Your task to perform on an android device: Open calendar and show me the fourth week of next month Image 0: 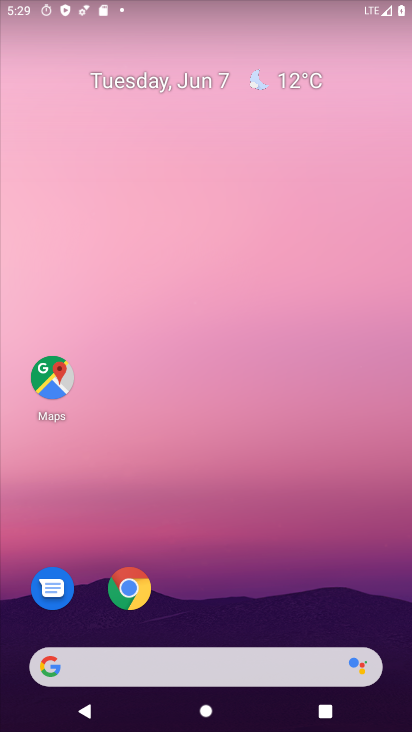
Step 0: drag from (218, 610) to (222, 24)
Your task to perform on an android device: Open calendar and show me the fourth week of next month Image 1: 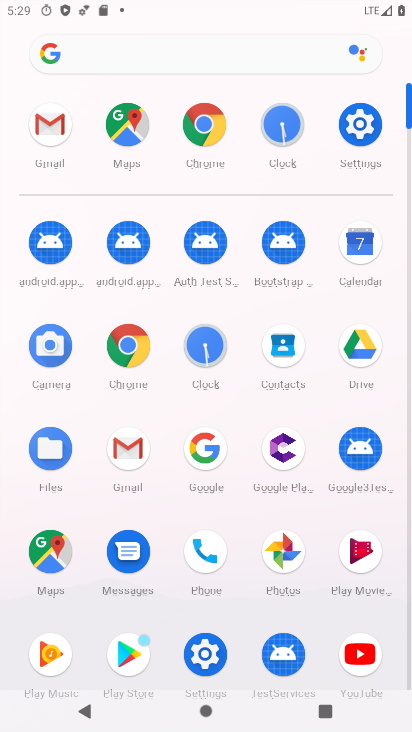
Step 1: press home button
Your task to perform on an android device: Open calendar and show me the fourth week of next month Image 2: 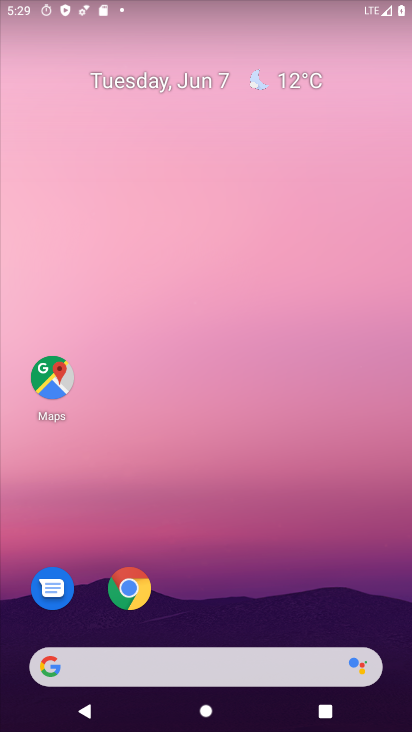
Step 2: drag from (197, 617) to (207, 152)
Your task to perform on an android device: Open calendar and show me the fourth week of next month Image 3: 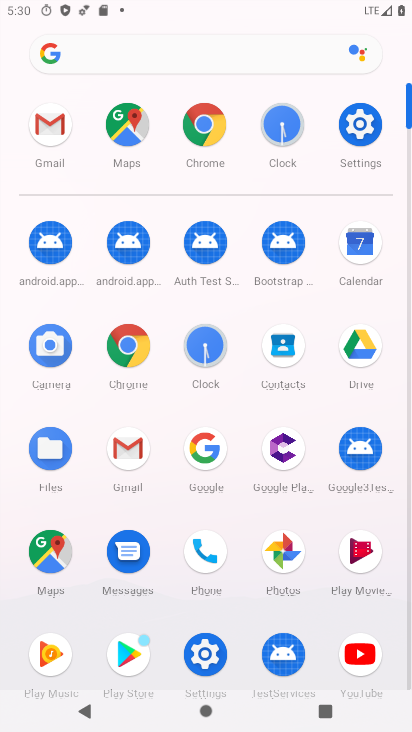
Step 3: drag from (248, 610) to (248, 175)
Your task to perform on an android device: Open calendar and show me the fourth week of next month Image 4: 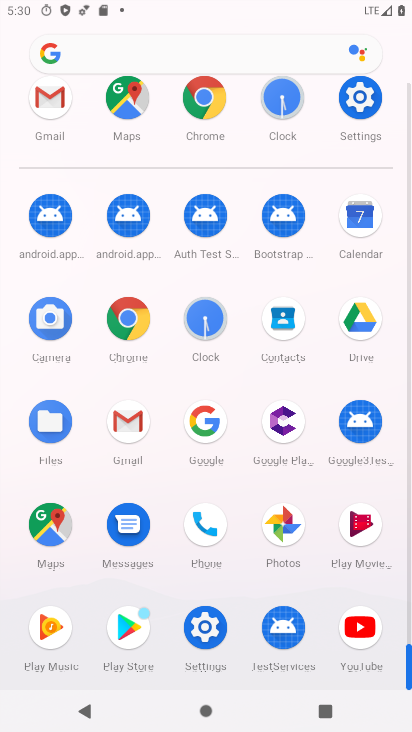
Step 4: click (359, 232)
Your task to perform on an android device: Open calendar and show me the fourth week of next month Image 5: 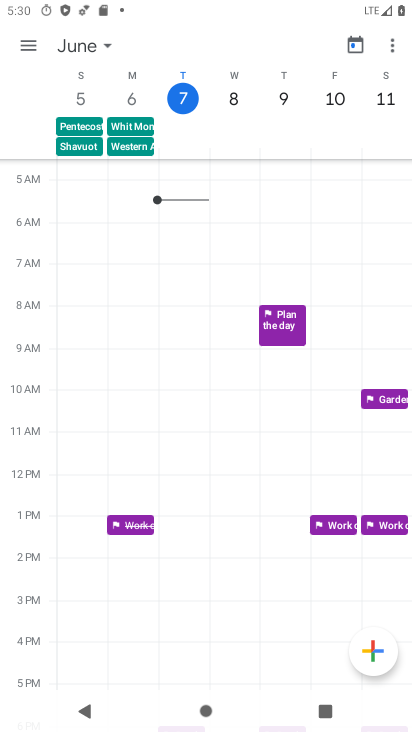
Step 5: click (59, 56)
Your task to perform on an android device: Open calendar and show me the fourth week of next month Image 6: 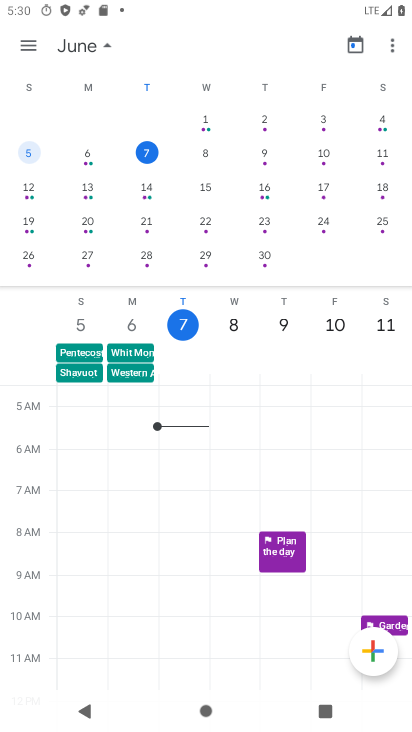
Step 6: drag from (350, 225) to (19, 164)
Your task to perform on an android device: Open calendar and show me the fourth week of next month Image 7: 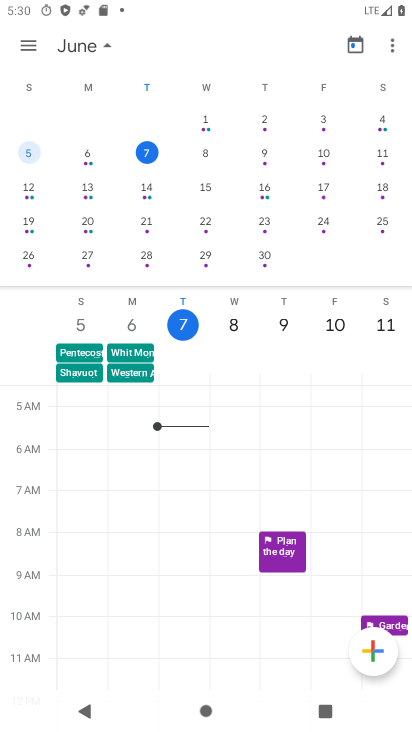
Step 7: drag from (370, 164) to (20, 100)
Your task to perform on an android device: Open calendar and show me the fourth week of next month Image 8: 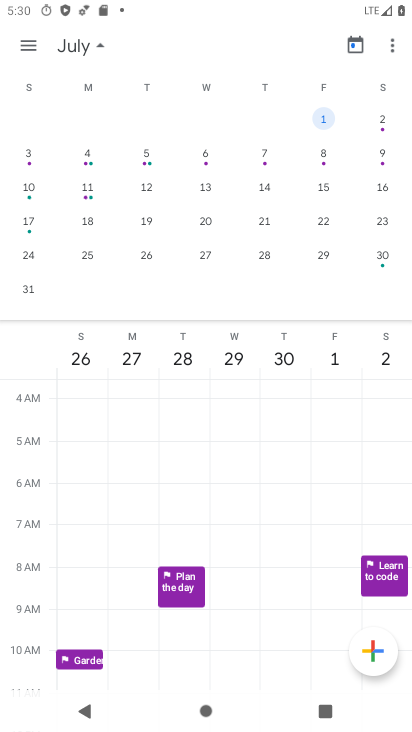
Step 8: click (30, 258)
Your task to perform on an android device: Open calendar and show me the fourth week of next month Image 9: 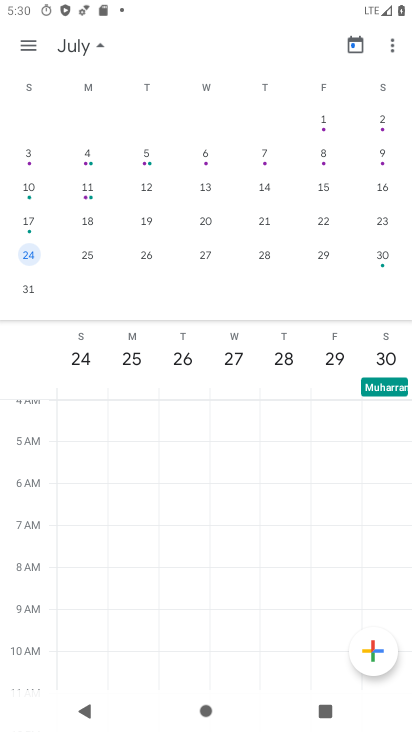
Step 9: task complete